Your task to perform on an android device: Go to battery settings Image 0: 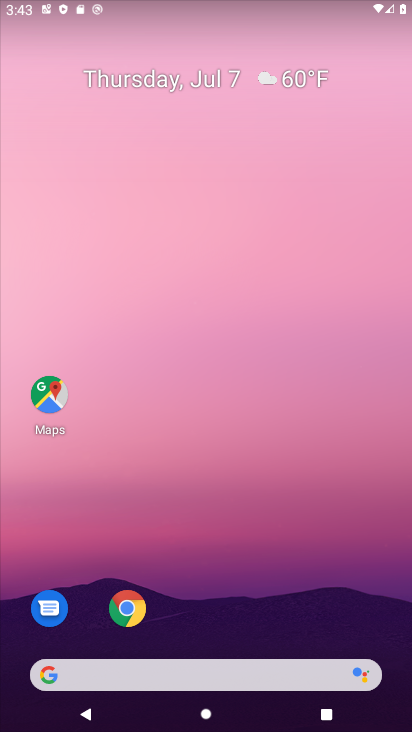
Step 0: drag from (199, 653) to (225, 387)
Your task to perform on an android device: Go to battery settings Image 1: 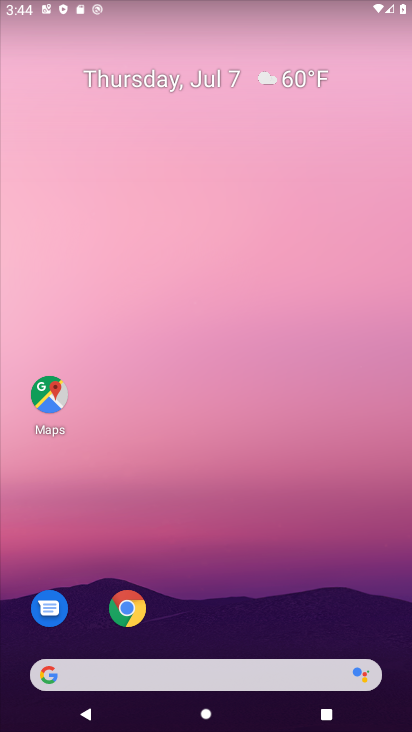
Step 1: drag from (198, 672) to (266, 181)
Your task to perform on an android device: Go to battery settings Image 2: 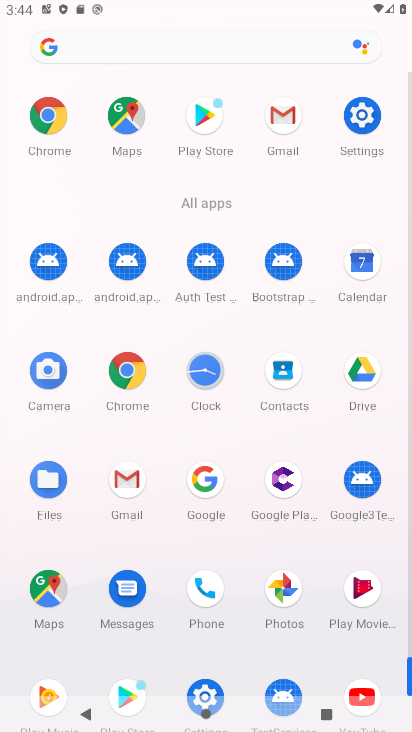
Step 2: click (358, 128)
Your task to perform on an android device: Go to battery settings Image 3: 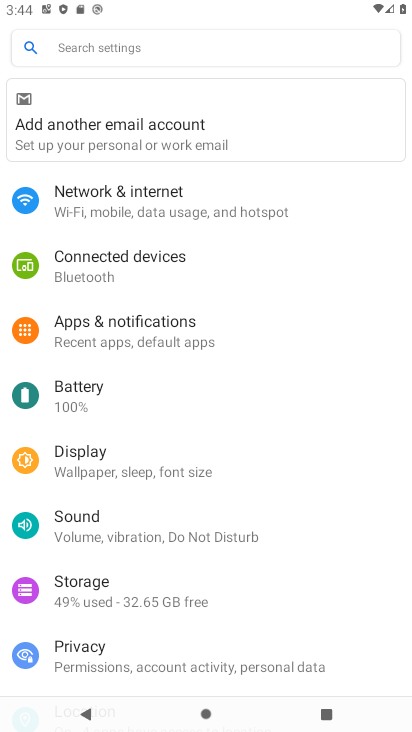
Step 3: click (106, 403)
Your task to perform on an android device: Go to battery settings Image 4: 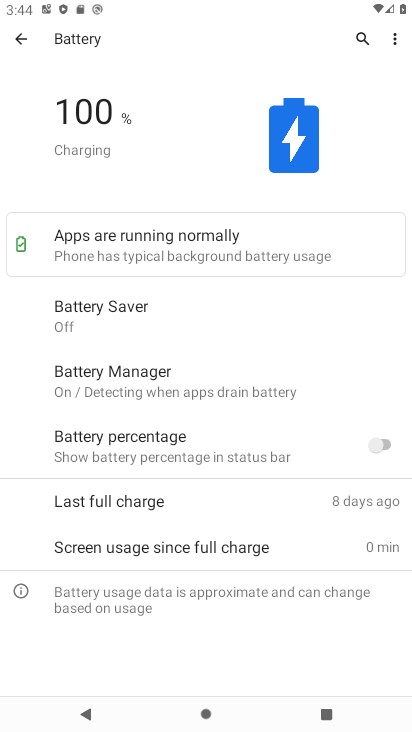
Step 4: task complete